Your task to perform on an android device: change the upload size in google photos Image 0: 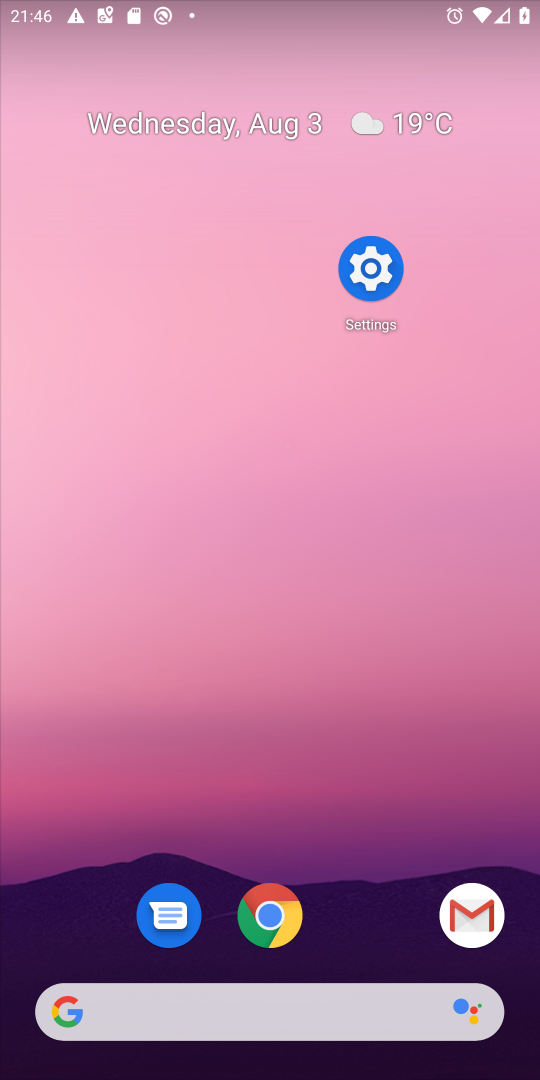
Step 0: drag from (355, 1005) to (223, 261)
Your task to perform on an android device: change the upload size in google photos Image 1: 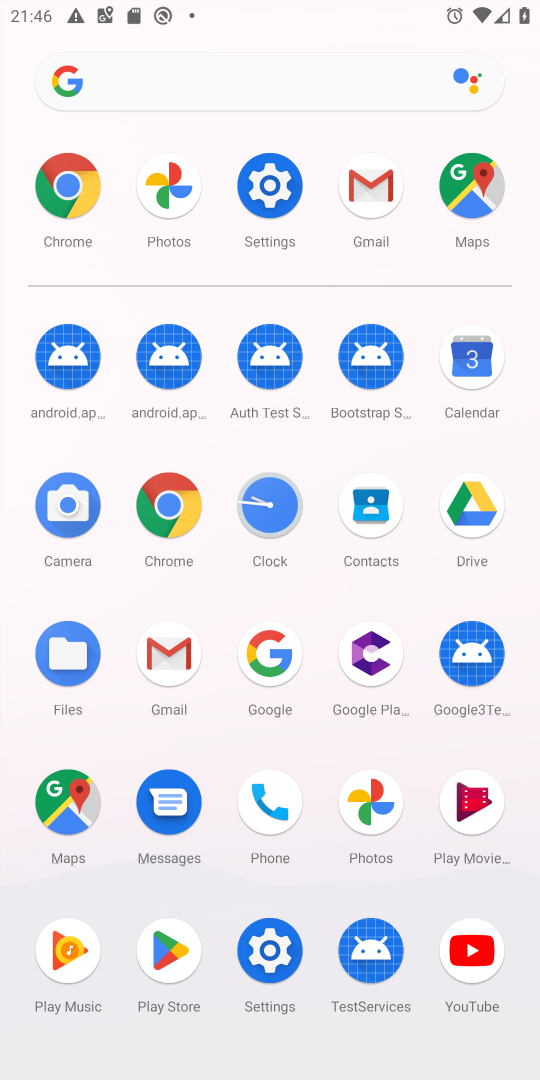
Step 1: click (338, 778)
Your task to perform on an android device: change the upload size in google photos Image 2: 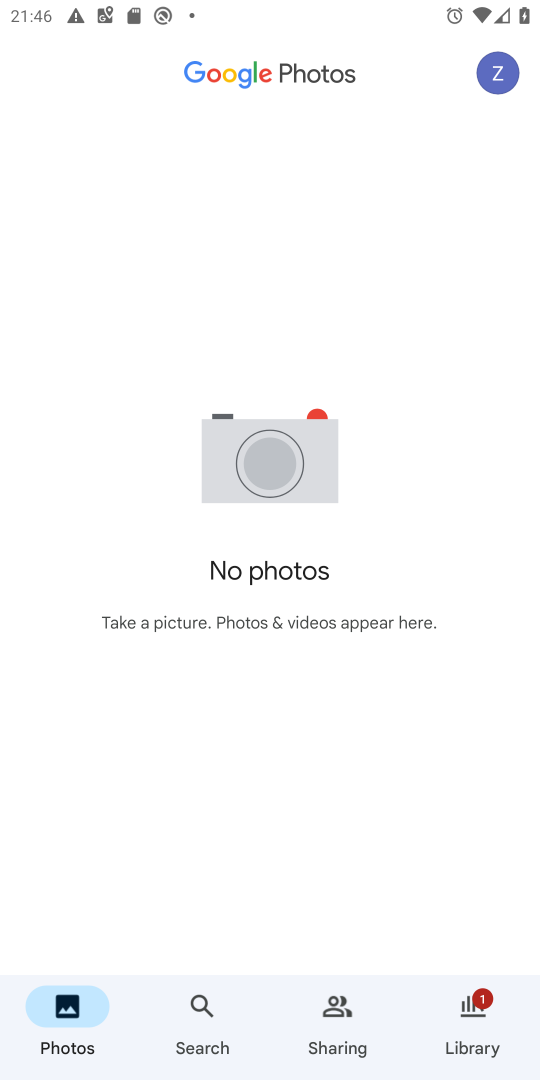
Step 2: click (499, 84)
Your task to perform on an android device: change the upload size in google photos Image 3: 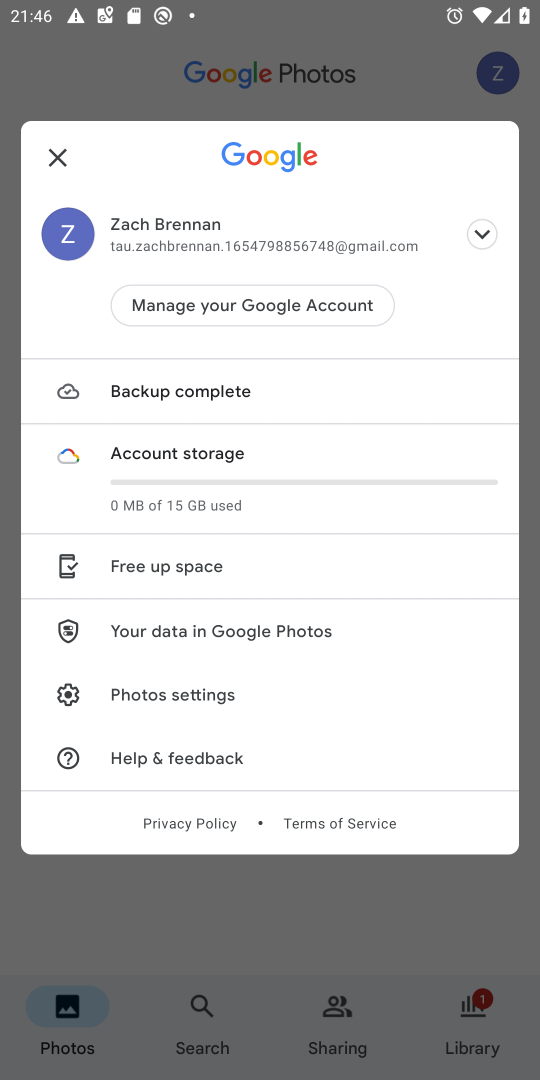
Step 3: click (221, 700)
Your task to perform on an android device: change the upload size in google photos Image 4: 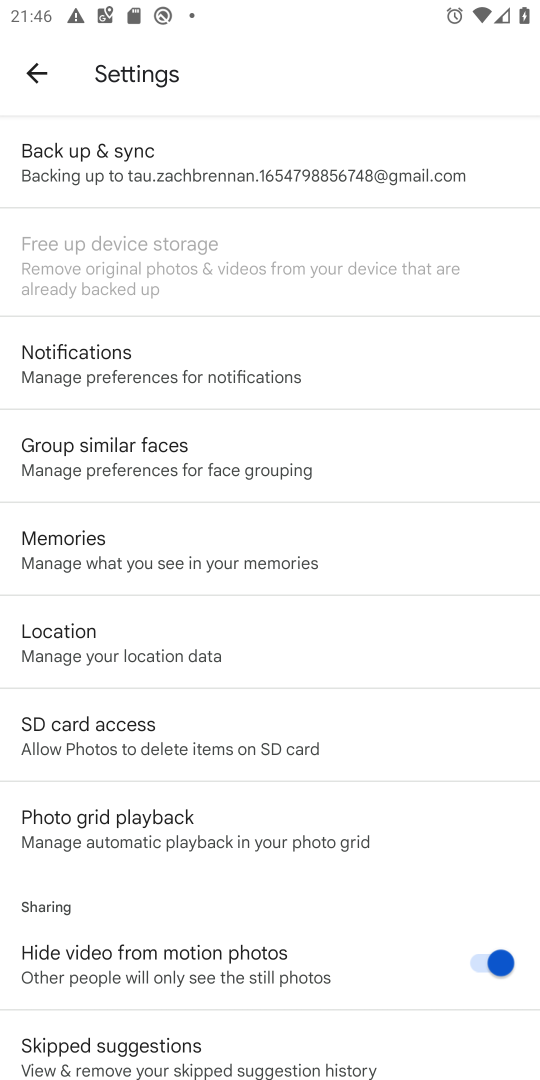
Step 4: click (140, 190)
Your task to perform on an android device: change the upload size in google photos Image 5: 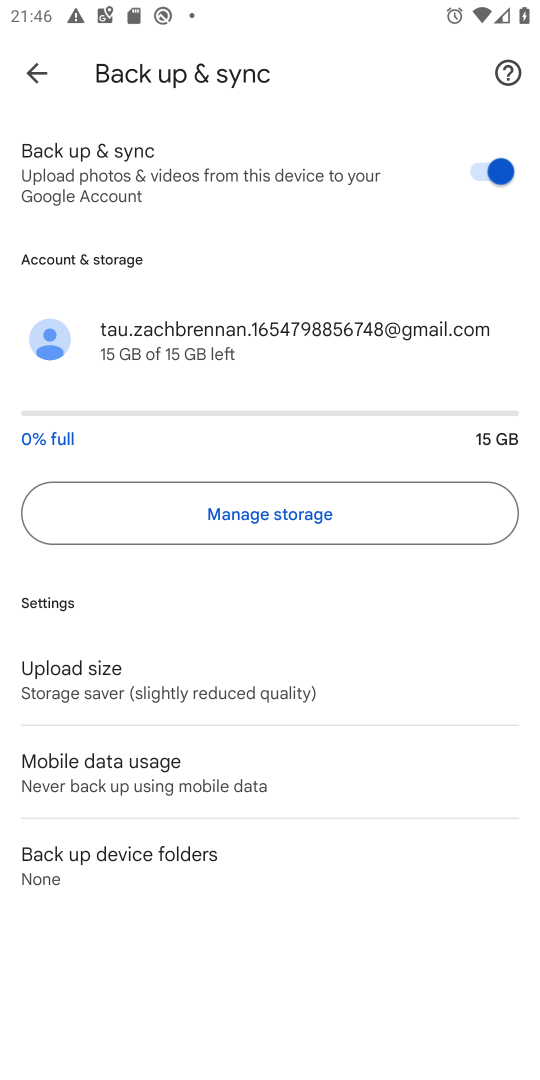
Step 5: click (183, 671)
Your task to perform on an android device: change the upload size in google photos Image 6: 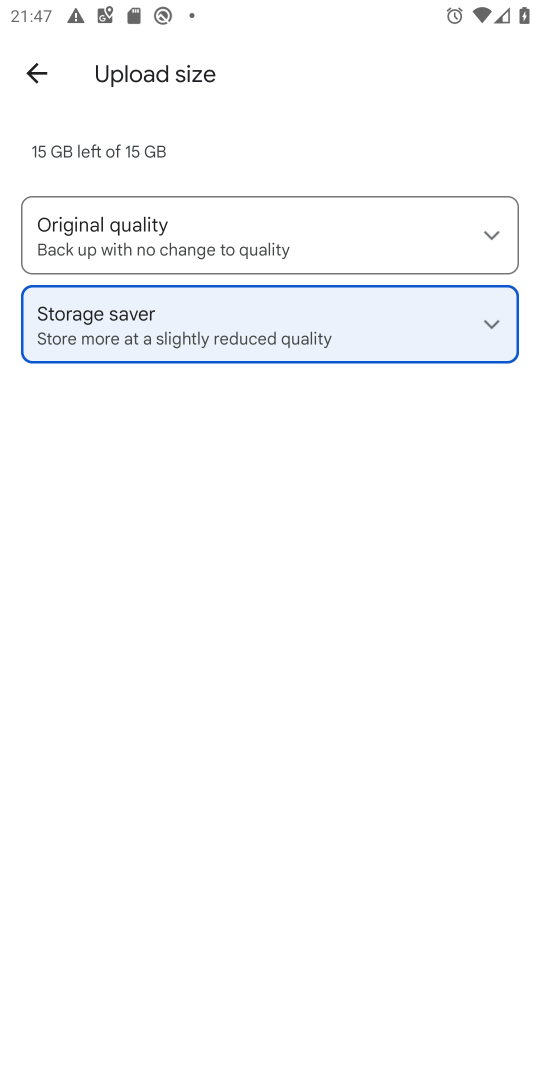
Step 6: task complete